Your task to perform on an android device: Is it going to rain this weekend? Image 0: 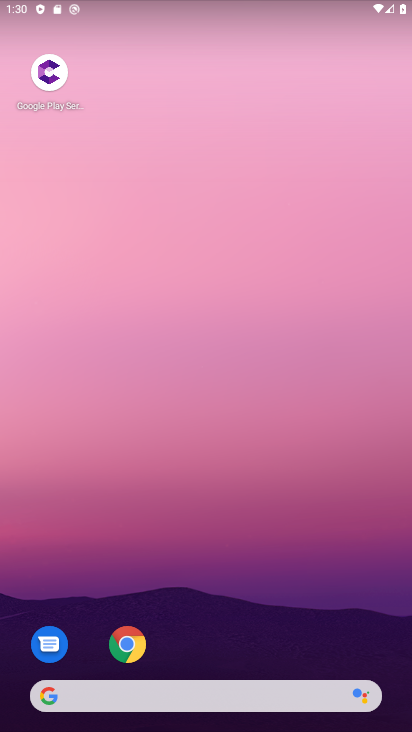
Step 0: click (51, 702)
Your task to perform on an android device: Is it going to rain this weekend? Image 1: 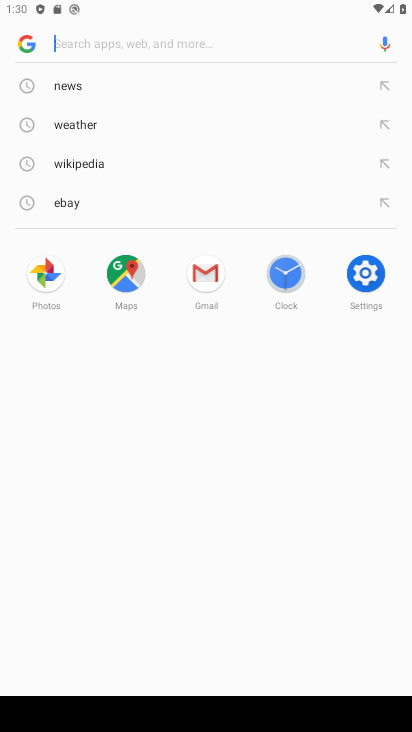
Step 1: click (125, 32)
Your task to perform on an android device: Is it going to rain this weekend? Image 2: 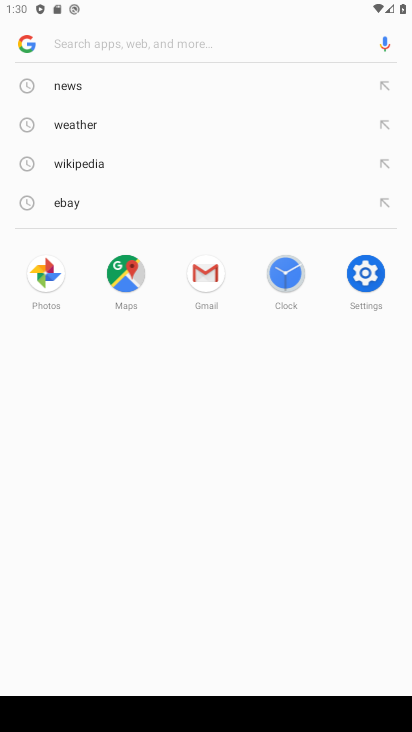
Step 2: type "rain this weekend?"
Your task to perform on an android device: Is it going to rain this weekend? Image 3: 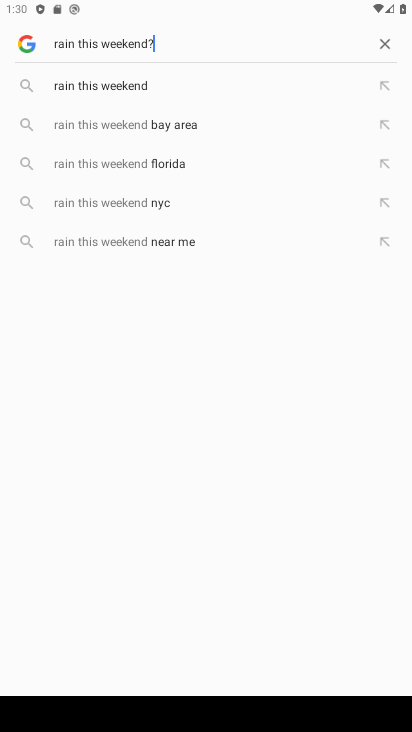
Step 3: press enter
Your task to perform on an android device: Is it going to rain this weekend? Image 4: 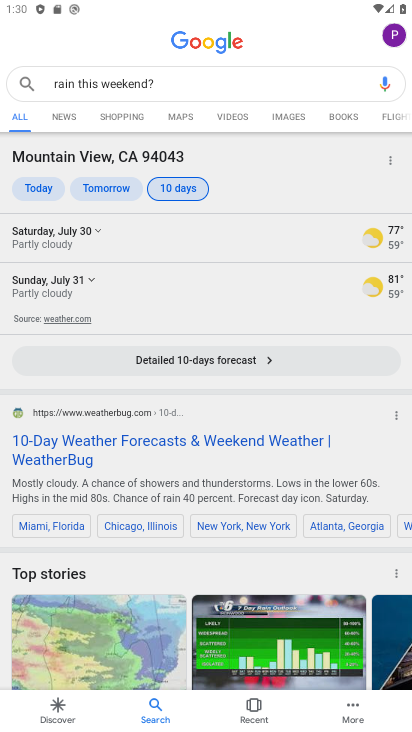
Step 4: task complete